Your task to perform on an android device: Open Android settings Image 0: 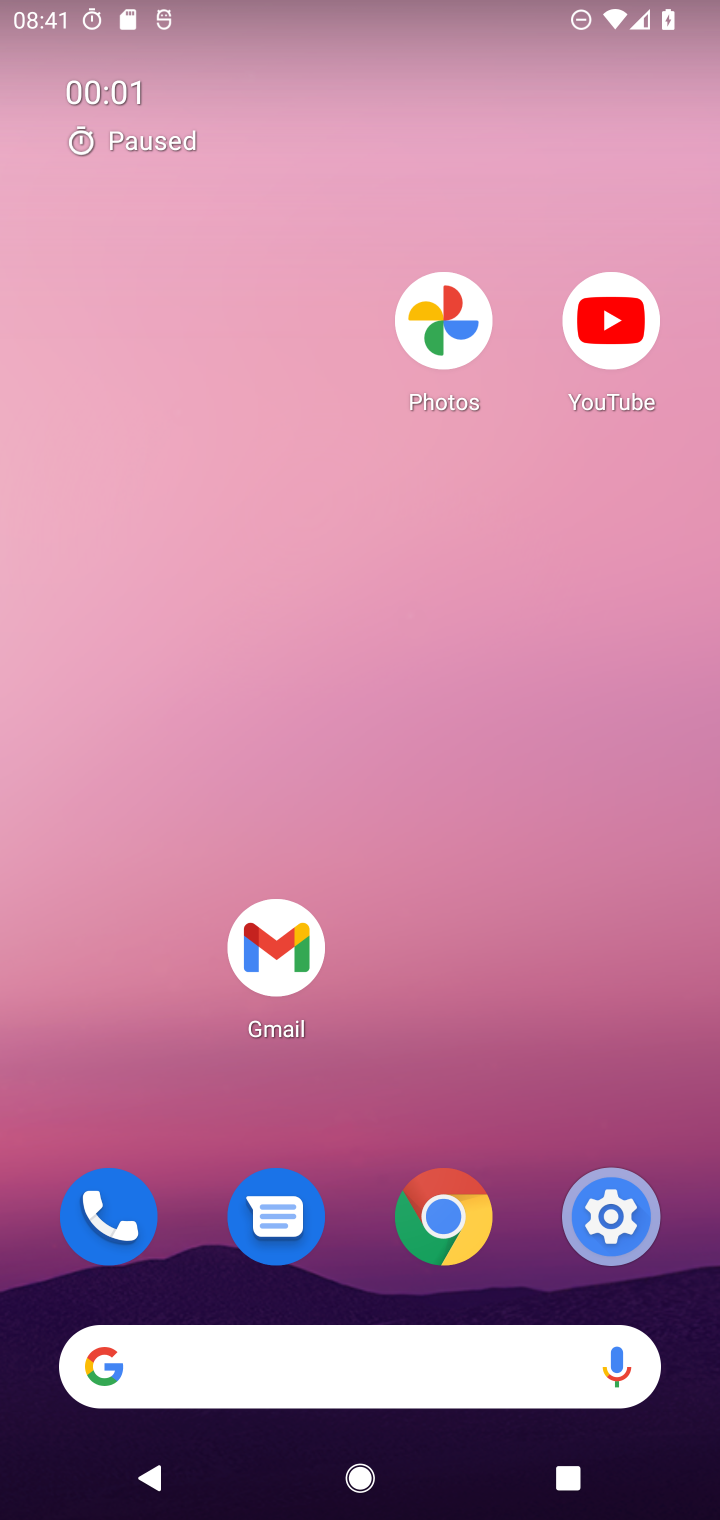
Step 0: drag from (537, 1029) to (330, 26)
Your task to perform on an android device: Open Android settings Image 1: 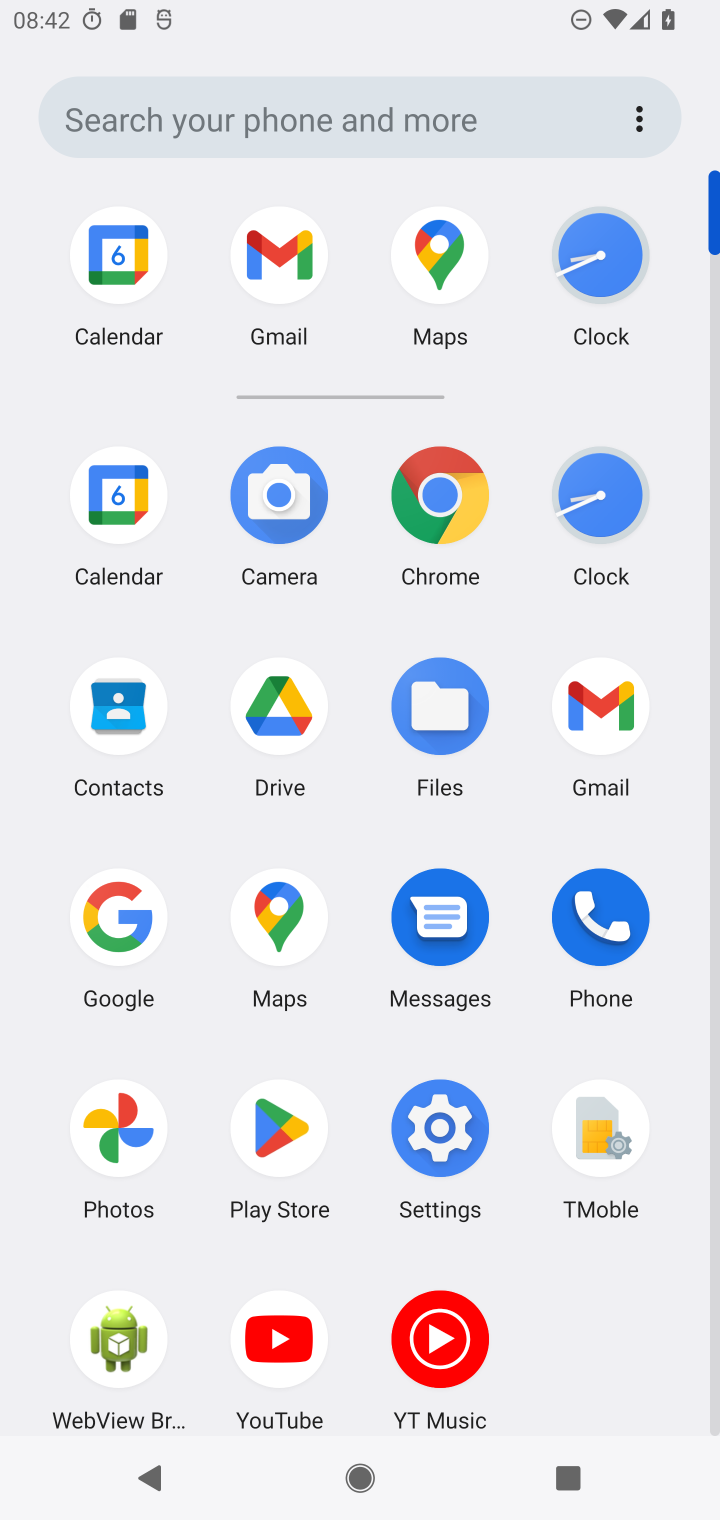
Step 1: click (453, 1146)
Your task to perform on an android device: Open Android settings Image 2: 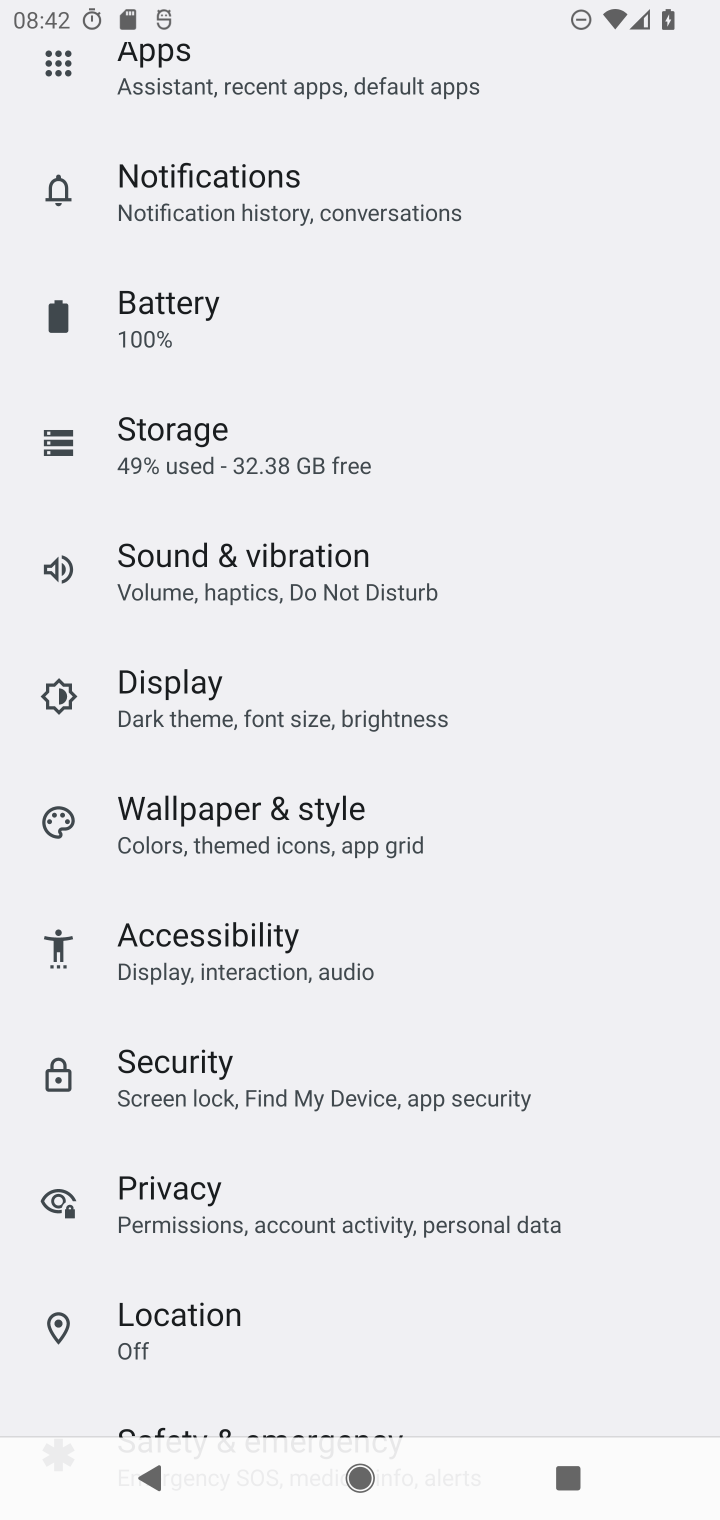
Step 2: task complete